Your task to perform on an android device: uninstall "Move to iOS" Image 0: 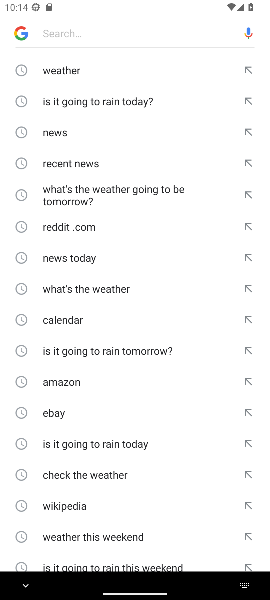
Step 0: press home button
Your task to perform on an android device: uninstall "Move to iOS" Image 1: 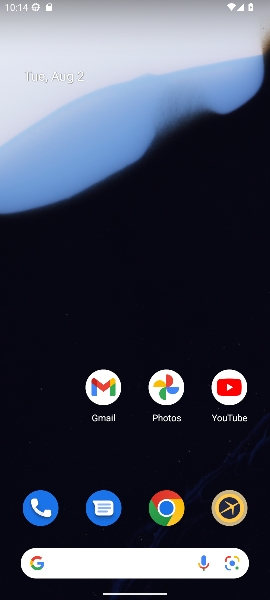
Step 1: drag from (111, 459) to (116, 88)
Your task to perform on an android device: uninstall "Move to iOS" Image 2: 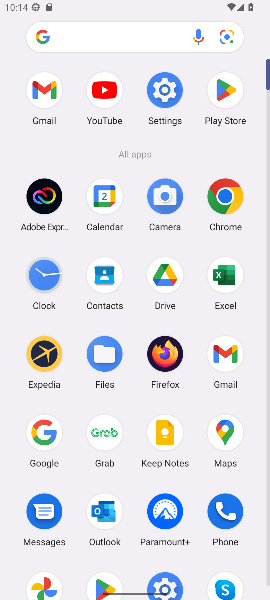
Step 2: click (228, 106)
Your task to perform on an android device: uninstall "Move to iOS" Image 3: 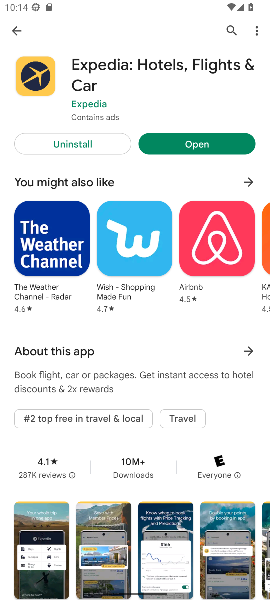
Step 3: click (232, 24)
Your task to perform on an android device: uninstall "Move to iOS" Image 4: 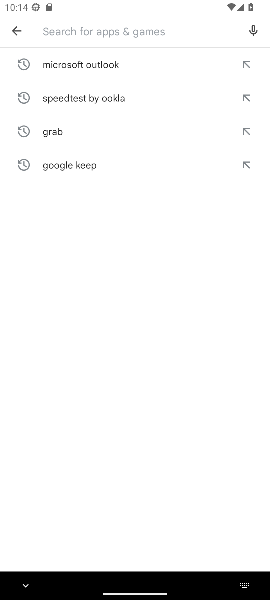
Step 4: type "Move to iOS"
Your task to perform on an android device: uninstall "Move to iOS" Image 5: 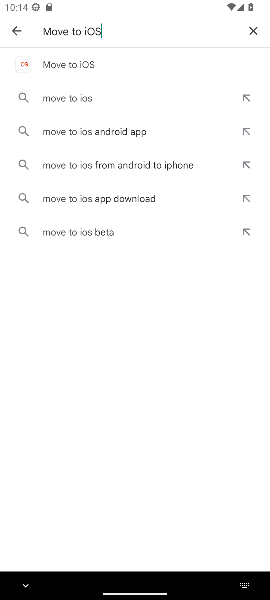
Step 5: click (70, 67)
Your task to perform on an android device: uninstall "Move to iOS" Image 6: 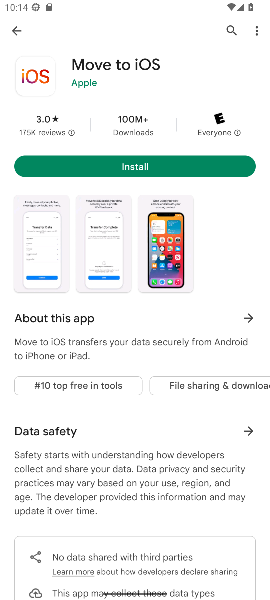
Step 6: task complete